Your task to perform on an android device: Go to notification settings Image 0: 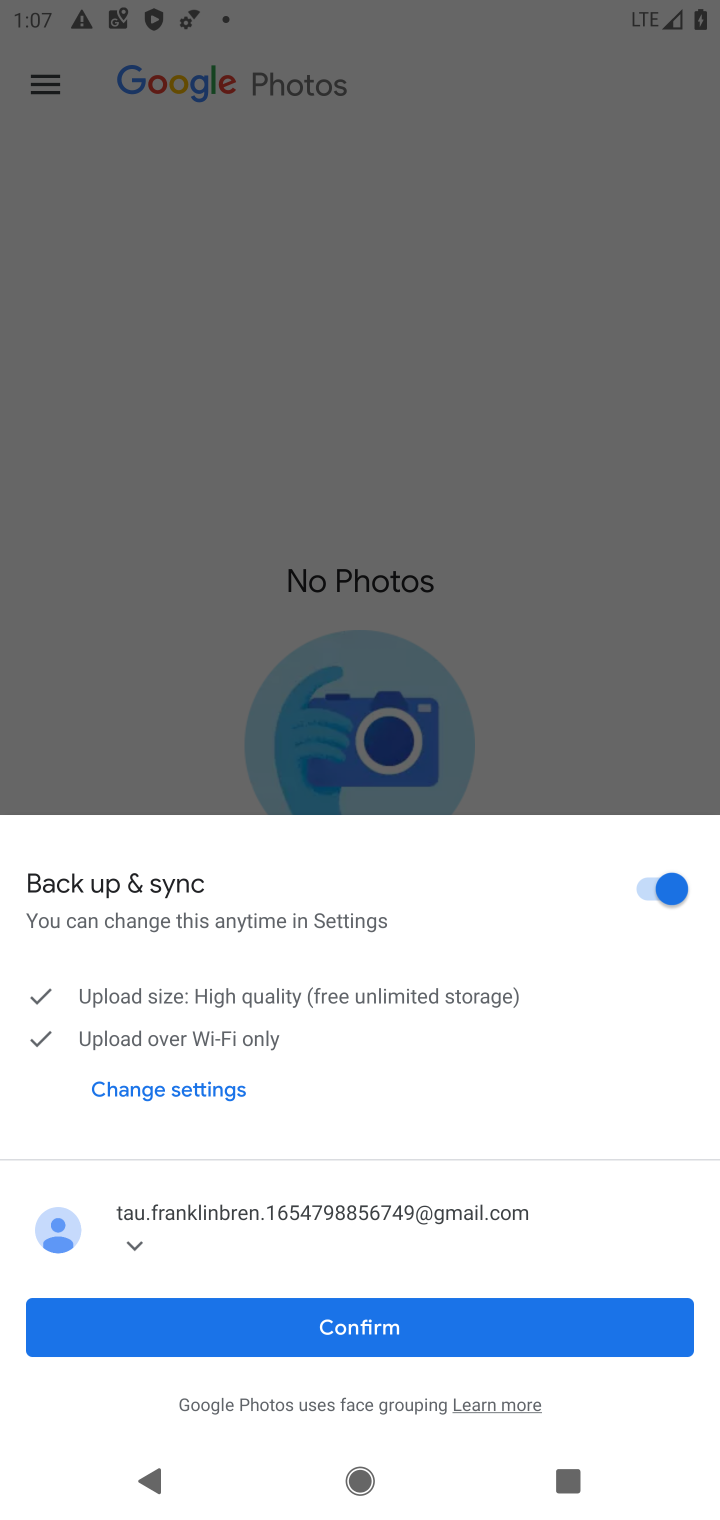
Step 0: press back button
Your task to perform on an android device: Go to notification settings Image 1: 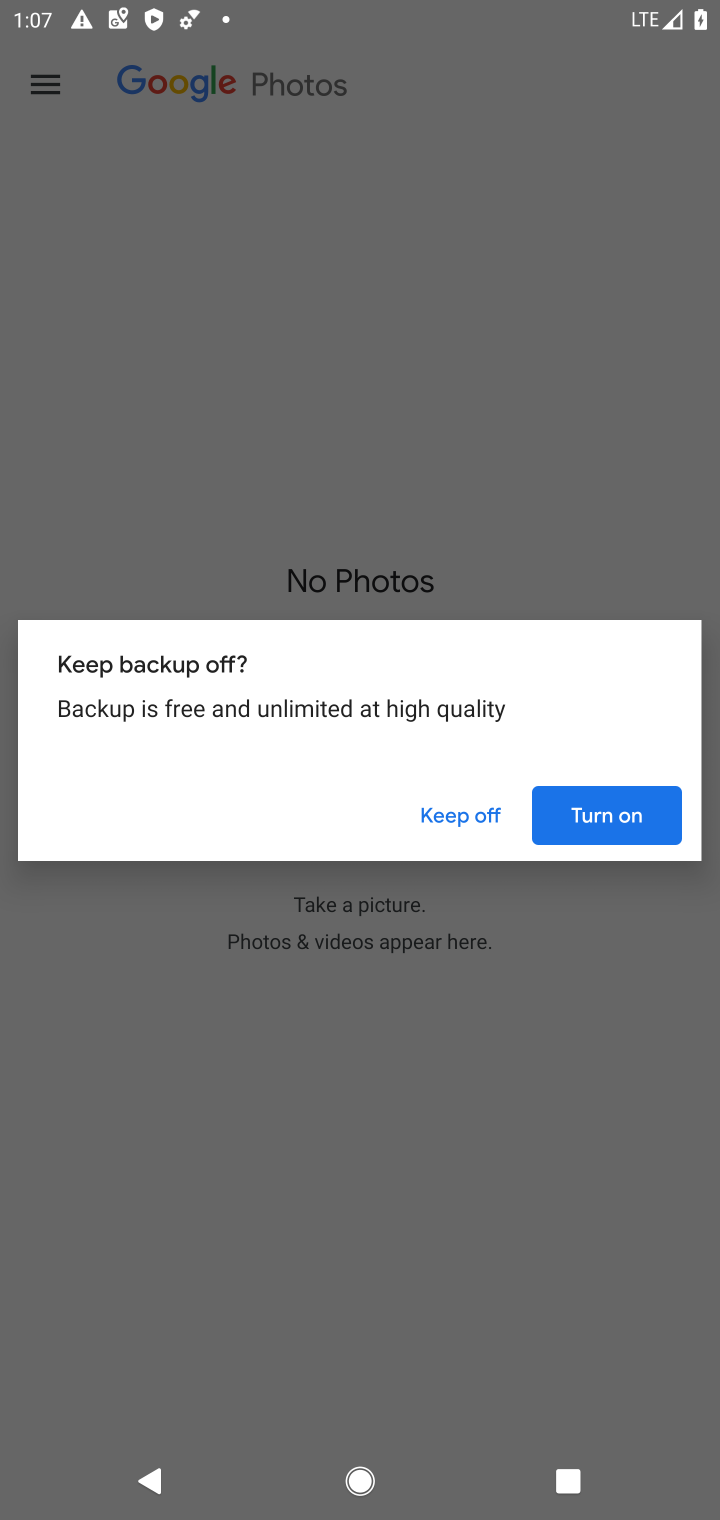
Step 1: press home button
Your task to perform on an android device: Go to notification settings Image 2: 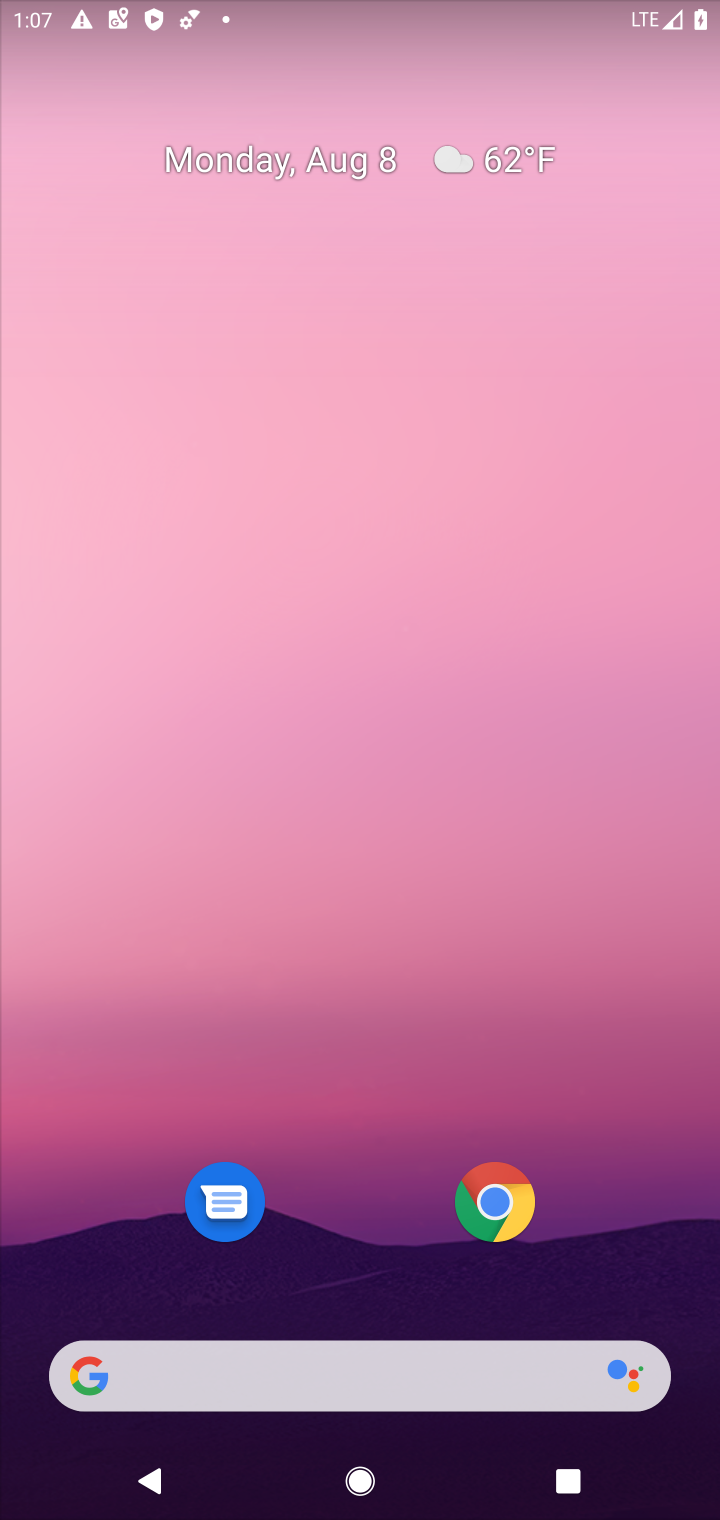
Step 2: drag from (274, 575) to (207, 312)
Your task to perform on an android device: Go to notification settings Image 3: 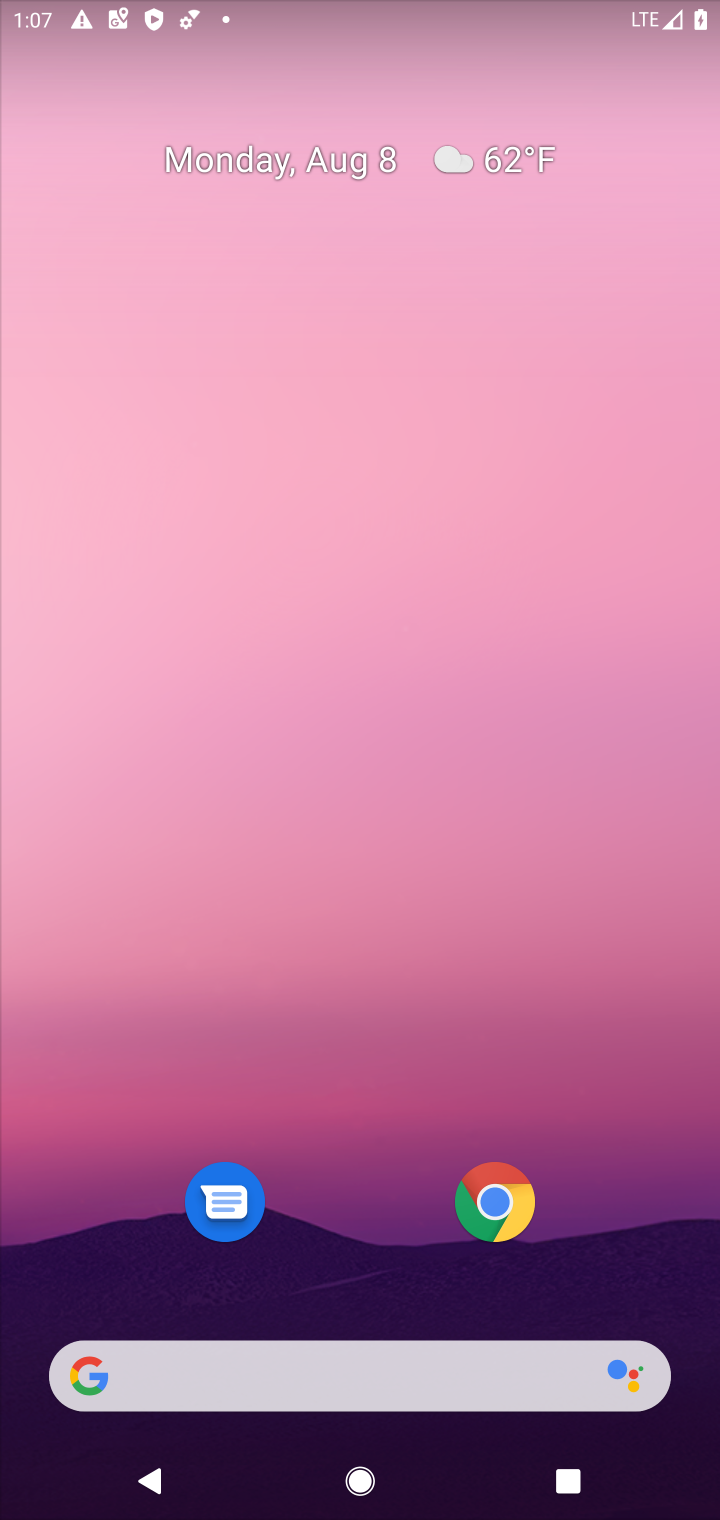
Step 3: drag from (293, 1108) to (484, 31)
Your task to perform on an android device: Go to notification settings Image 4: 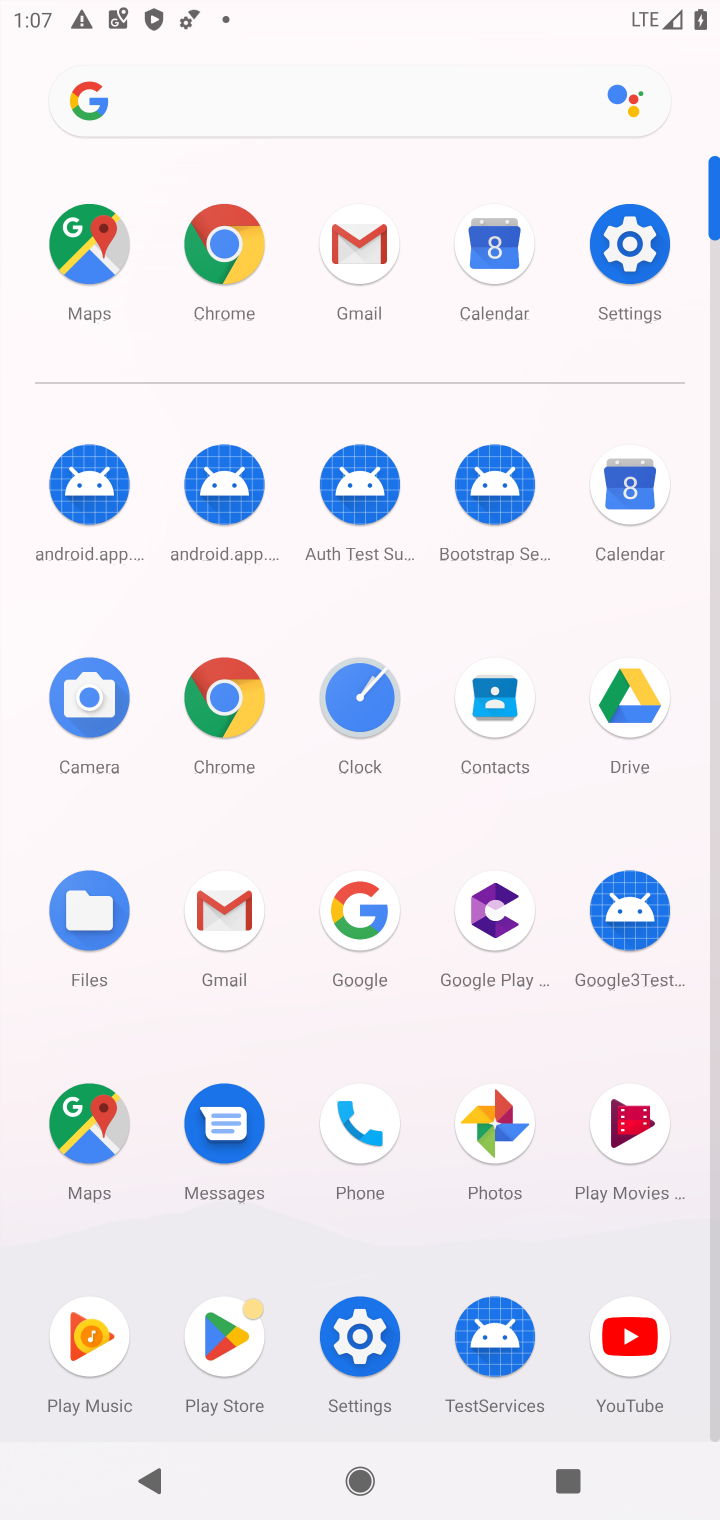
Step 4: click (635, 232)
Your task to perform on an android device: Go to notification settings Image 5: 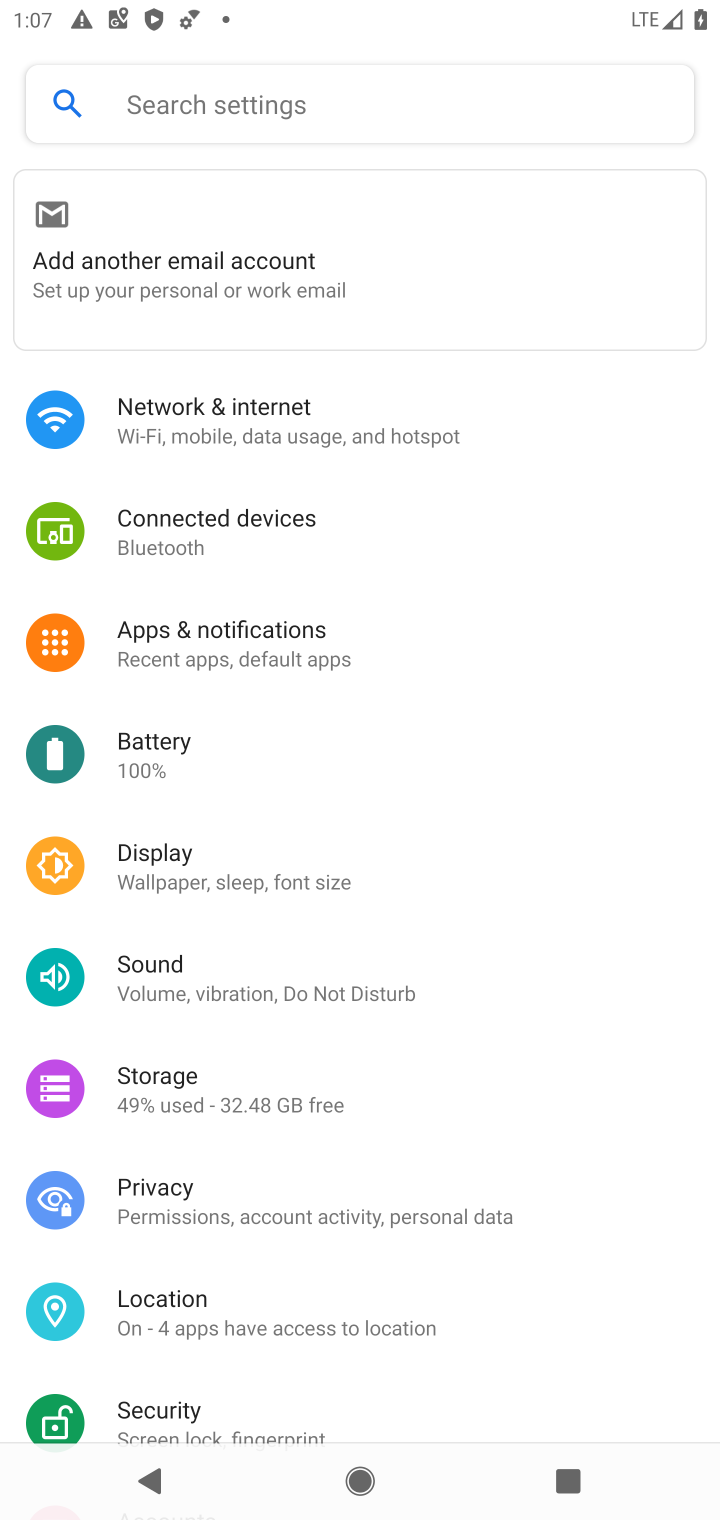
Step 5: click (235, 450)
Your task to perform on an android device: Go to notification settings Image 6: 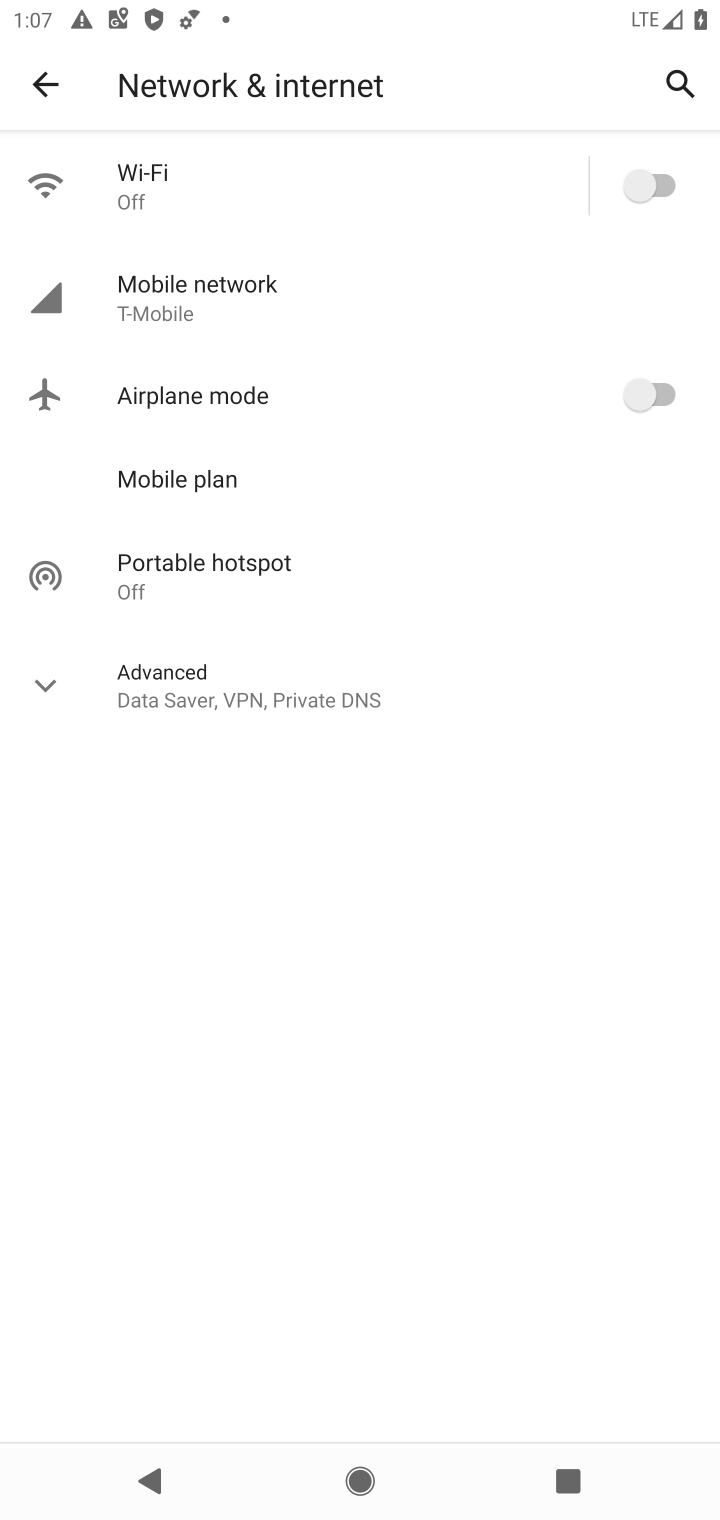
Step 6: press back button
Your task to perform on an android device: Go to notification settings Image 7: 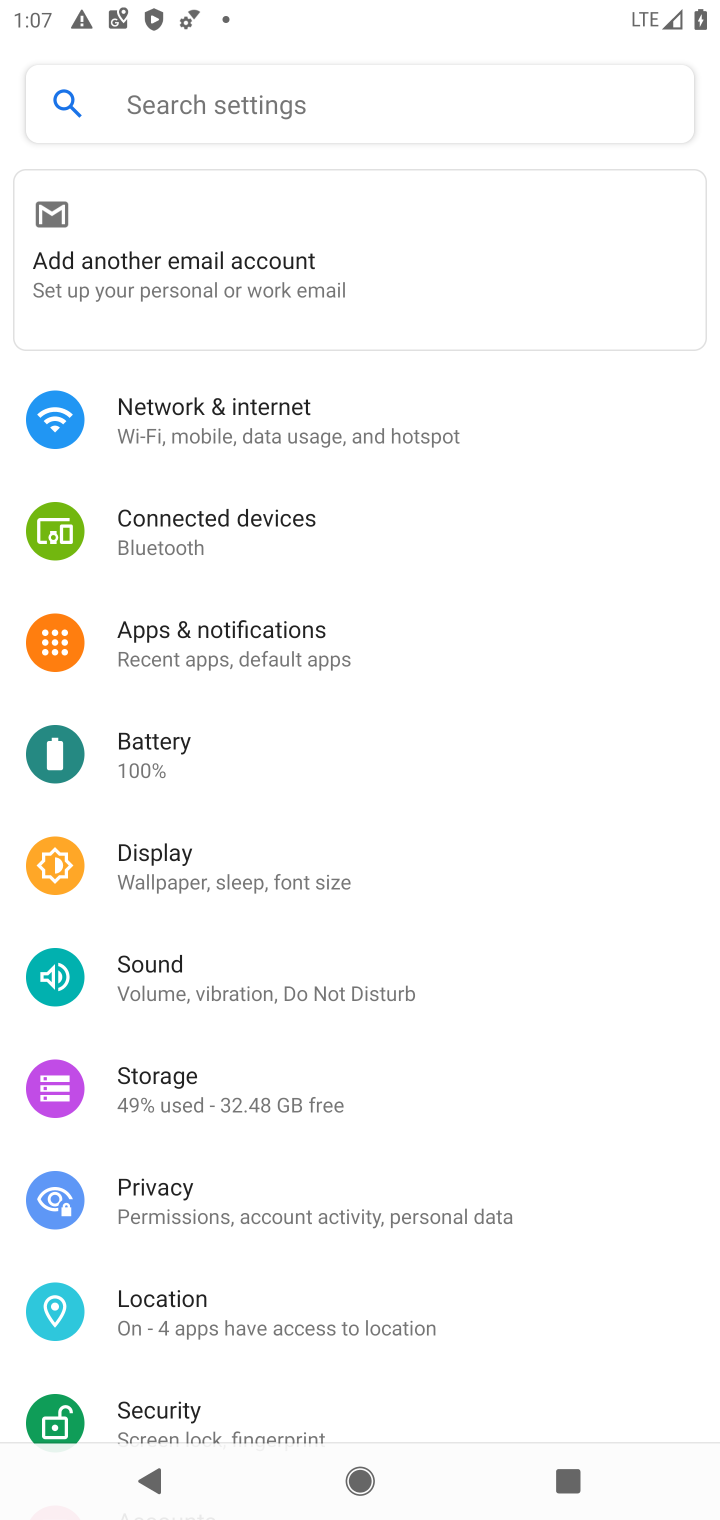
Step 7: click (256, 626)
Your task to perform on an android device: Go to notification settings Image 8: 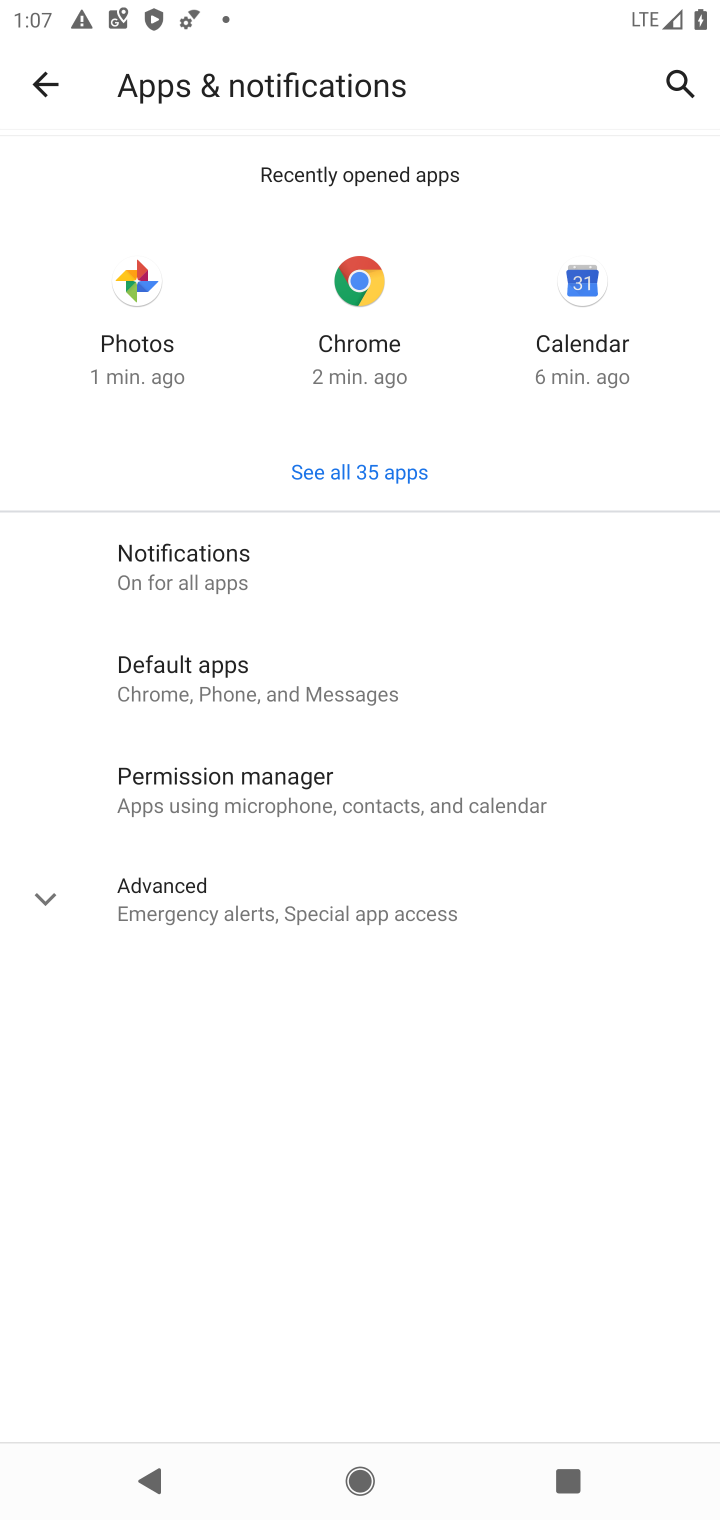
Step 8: task complete